Your task to perform on an android device: toggle show notifications on the lock screen Image 0: 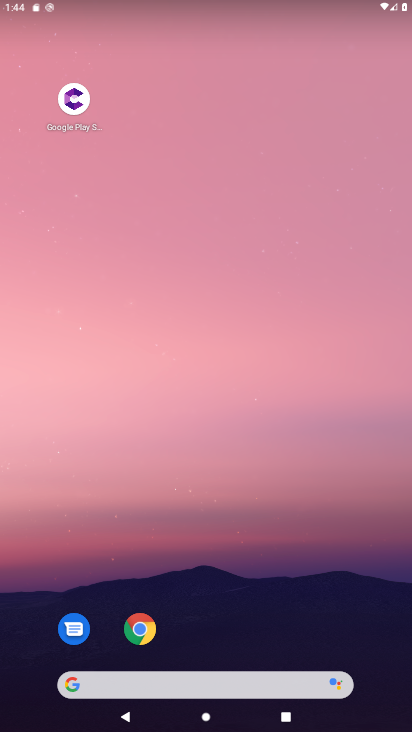
Step 0: drag from (218, 457) to (218, 107)
Your task to perform on an android device: toggle show notifications on the lock screen Image 1: 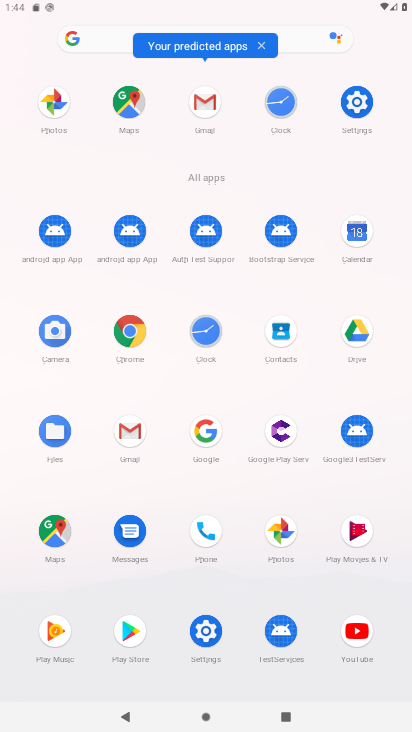
Step 1: click (358, 108)
Your task to perform on an android device: toggle show notifications on the lock screen Image 2: 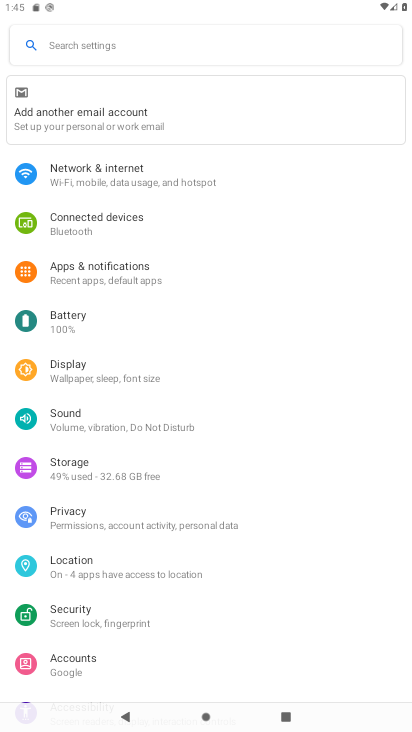
Step 2: click (123, 270)
Your task to perform on an android device: toggle show notifications on the lock screen Image 3: 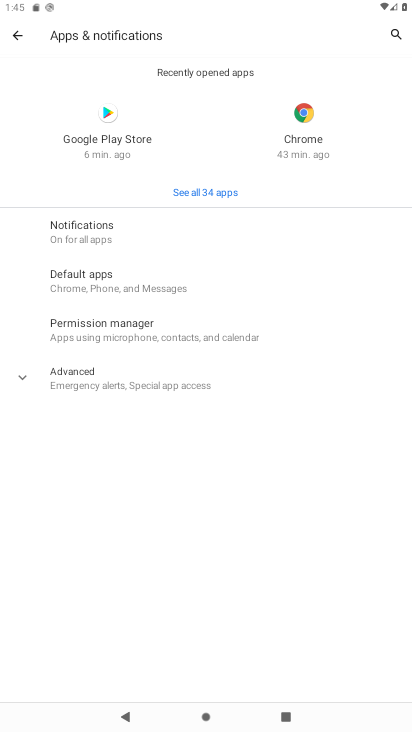
Step 3: click (153, 242)
Your task to perform on an android device: toggle show notifications on the lock screen Image 4: 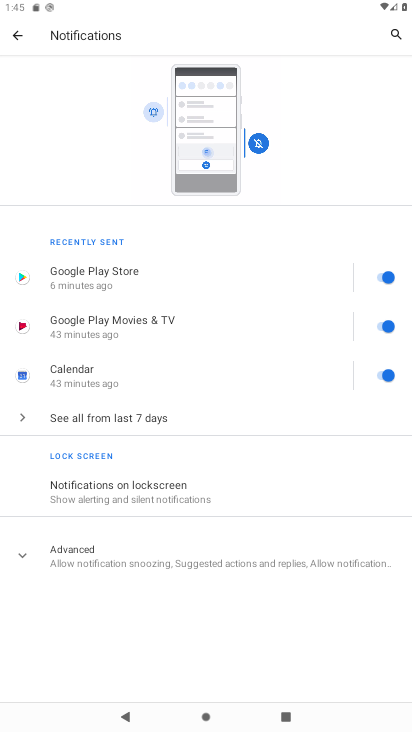
Step 4: click (96, 478)
Your task to perform on an android device: toggle show notifications on the lock screen Image 5: 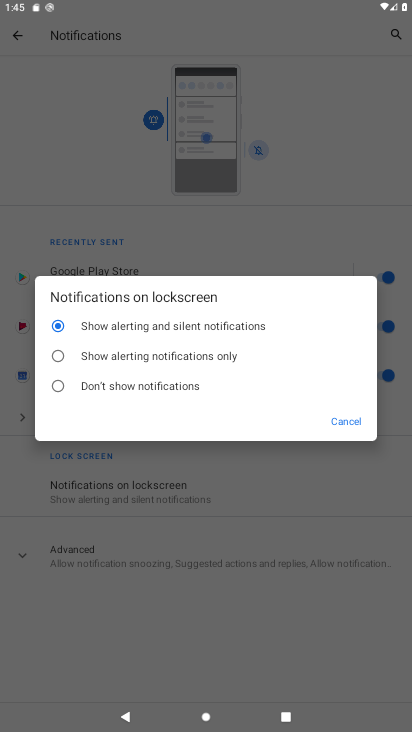
Step 5: click (57, 380)
Your task to perform on an android device: toggle show notifications on the lock screen Image 6: 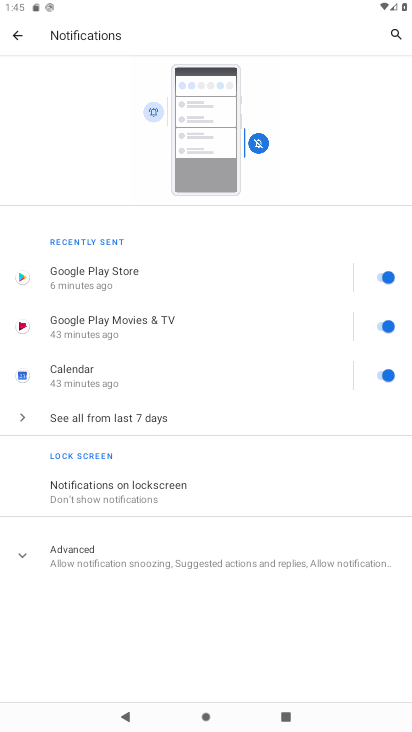
Step 6: task complete